Your task to perform on an android device: Empty the shopping cart on newegg.com. Search for "asus rog" on newegg.com, select the first entry, and add it to the cart. Image 0: 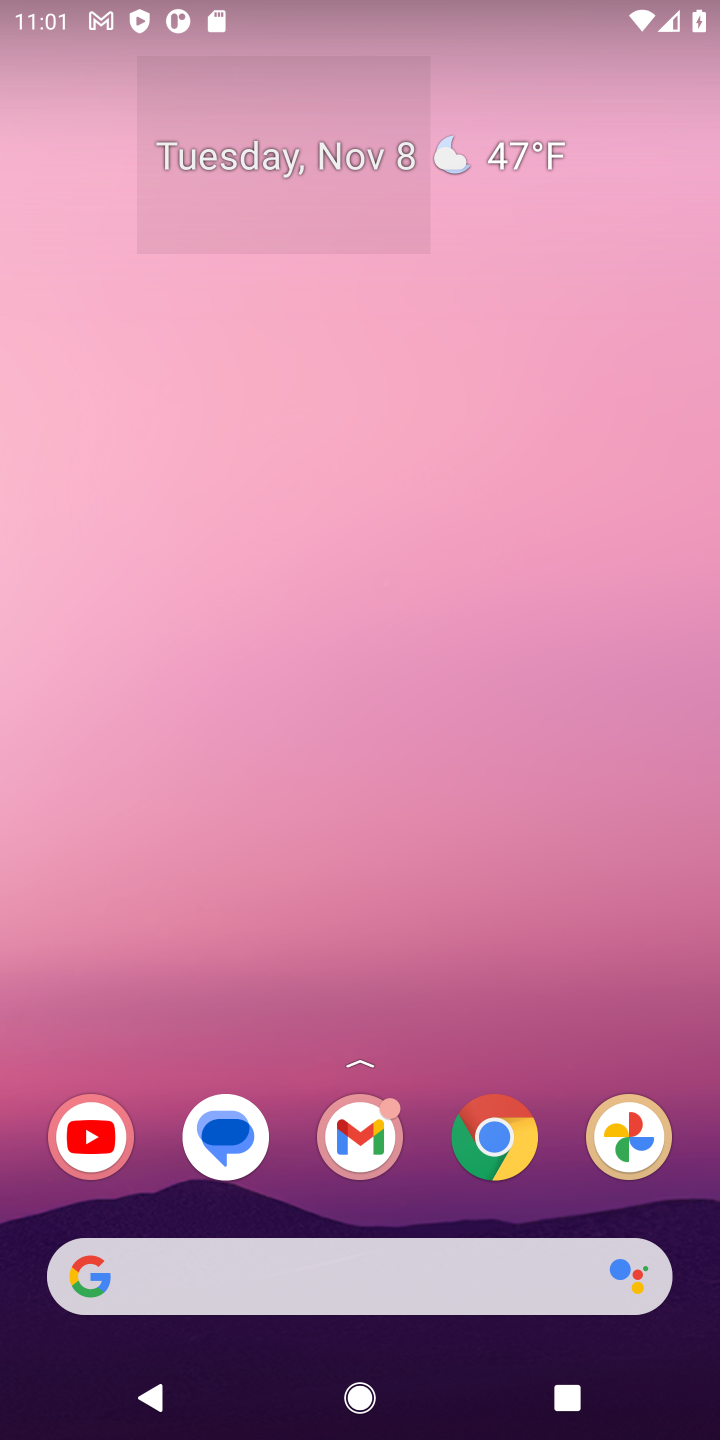
Step 0: click (495, 1143)
Your task to perform on an android device: Empty the shopping cart on newegg.com. Search for "asus rog" on newegg.com, select the first entry, and add it to the cart. Image 1: 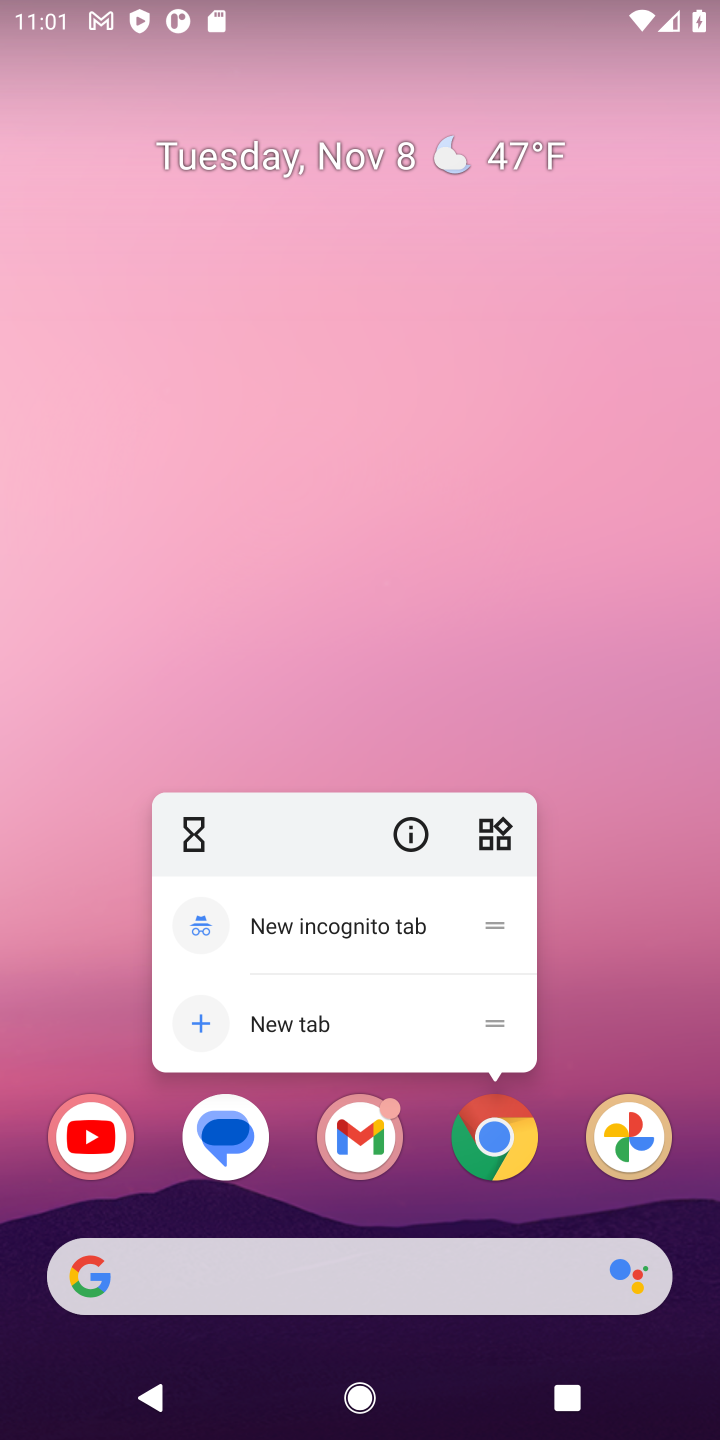
Step 1: click (498, 1138)
Your task to perform on an android device: Empty the shopping cart on newegg.com. Search for "asus rog" on newegg.com, select the first entry, and add it to the cart. Image 2: 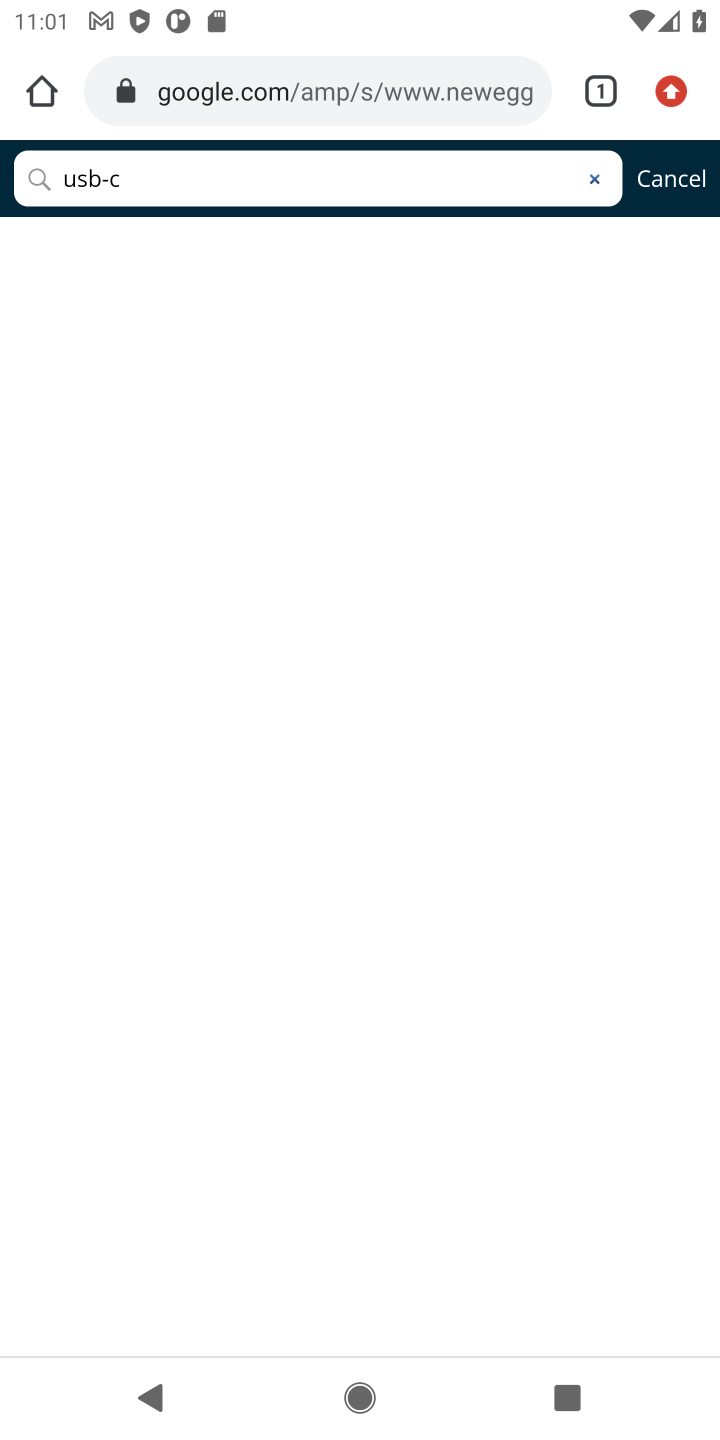
Step 2: task complete